Your task to perform on an android device: Open calendar and show me the third week of next month Image 0: 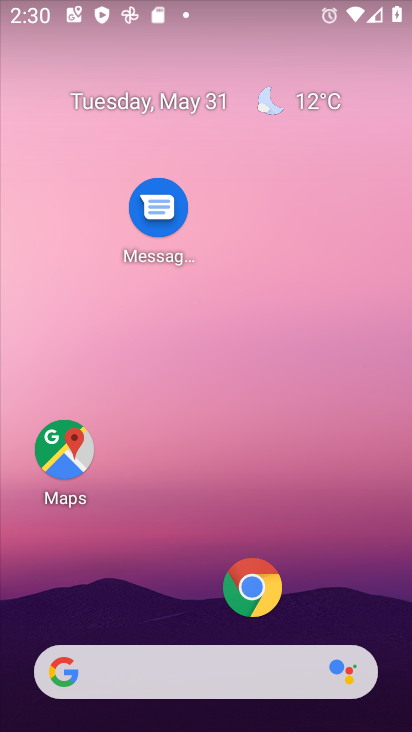
Step 0: drag from (187, 553) to (139, 202)
Your task to perform on an android device: Open calendar and show me the third week of next month Image 1: 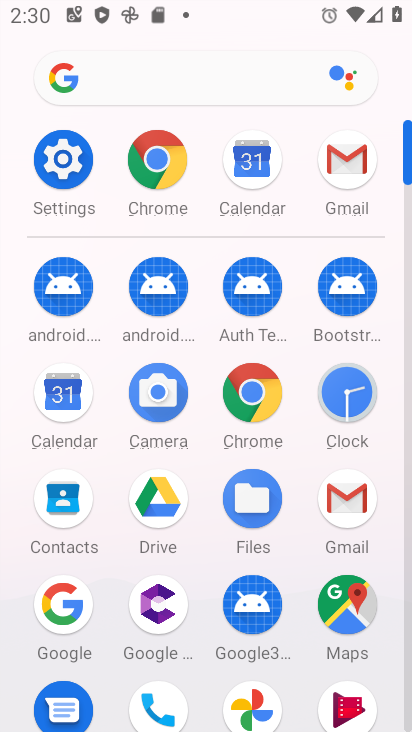
Step 1: click (74, 400)
Your task to perform on an android device: Open calendar and show me the third week of next month Image 2: 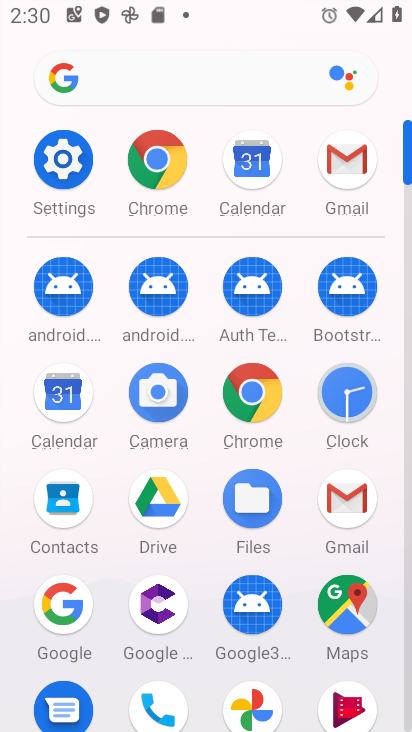
Step 2: click (74, 400)
Your task to perform on an android device: Open calendar and show me the third week of next month Image 3: 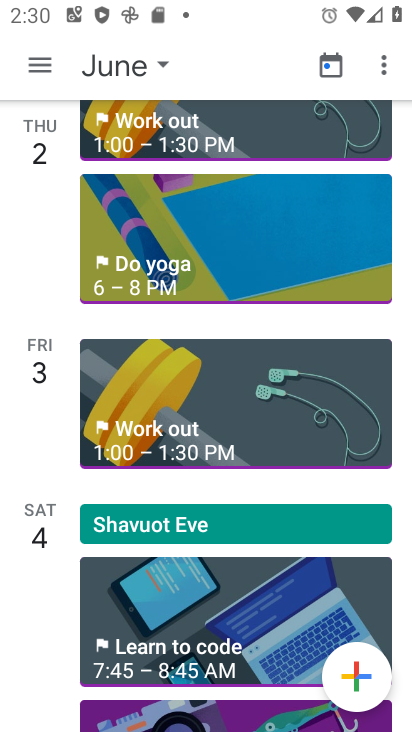
Step 3: click (130, 62)
Your task to perform on an android device: Open calendar and show me the third week of next month Image 4: 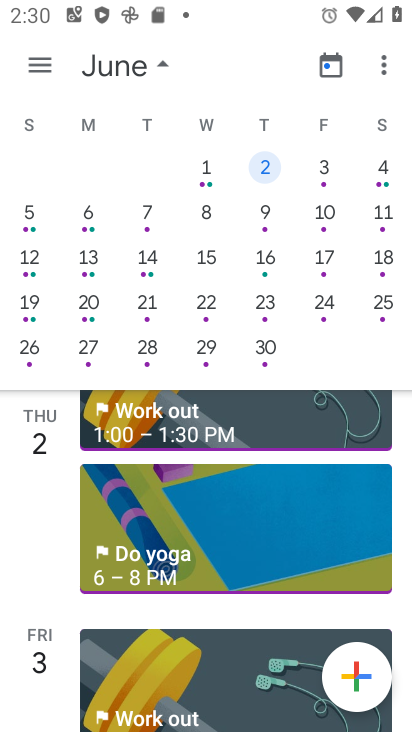
Step 4: click (265, 271)
Your task to perform on an android device: Open calendar and show me the third week of next month Image 5: 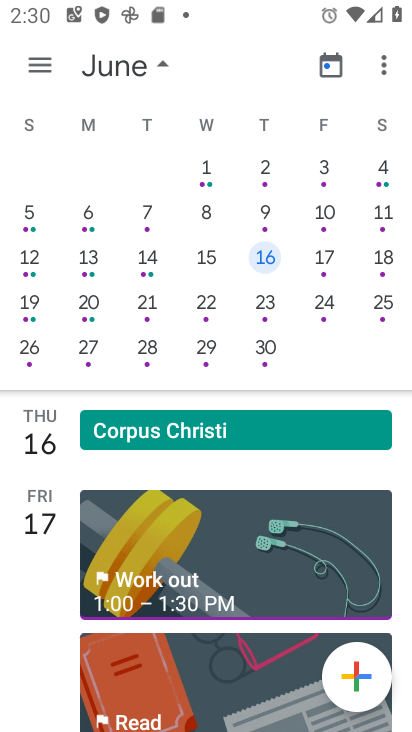
Step 5: task complete